Your task to perform on an android device: Search for Italian restaurants on Maps Image 0: 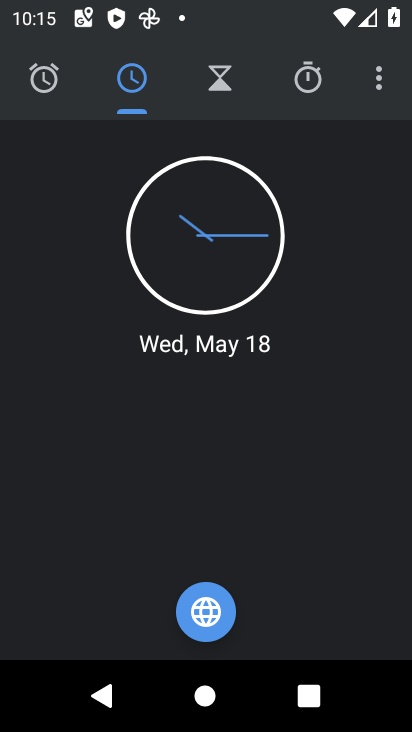
Step 0: press home button
Your task to perform on an android device: Search for Italian restaurants on Maps Image 1: 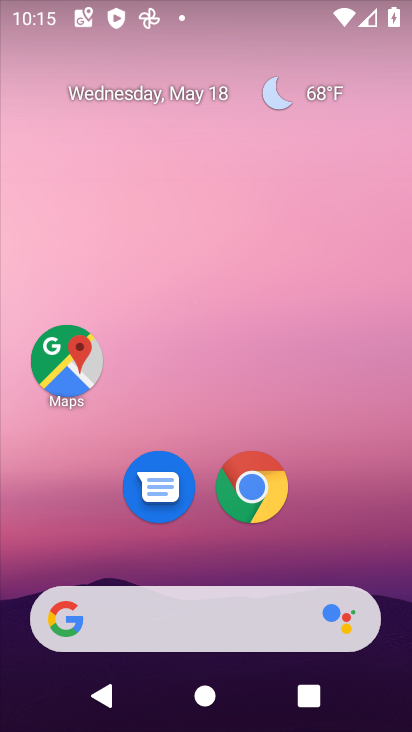
Step 1: drag from (359, 490) to (363, 134)
Your task to perform on an android device: Search for Italian restaurants on Maps Image 2: 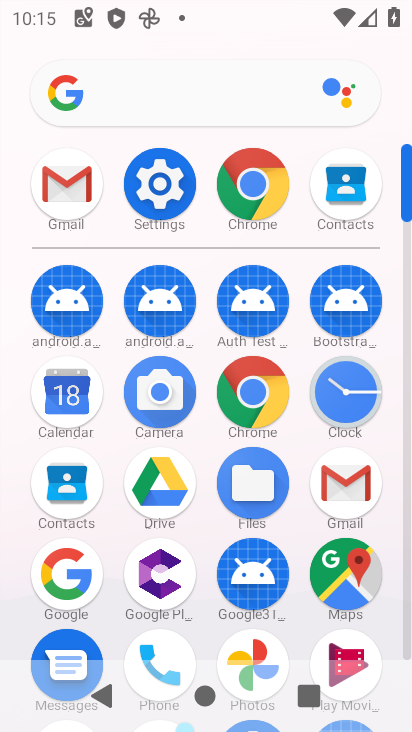
Step 2: click (331, 577)
Your task to perform on an android device: Search for Italian restaurants on Maps Image 3: 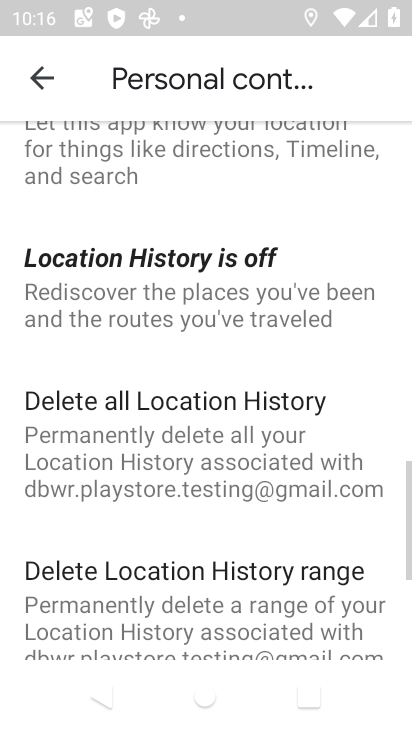
Step 3: click (53, 72)
Your task to perform on an android device: Search for Italian restaurants on Maps Image 4: 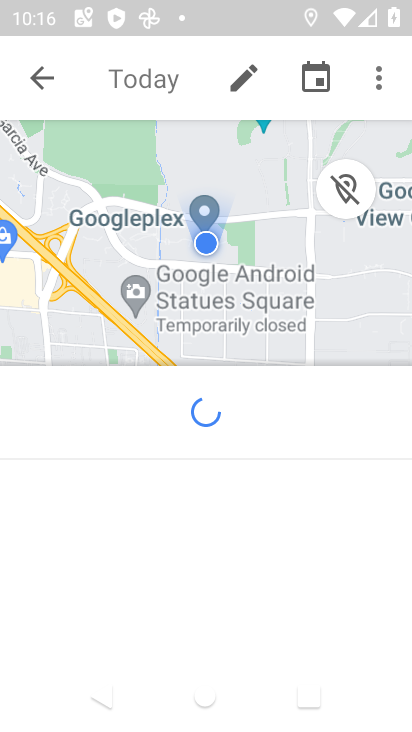
Step 4: click (53, 72)
Your task to perform on an android device: Search for Italian restaurants on Maps Image 5: 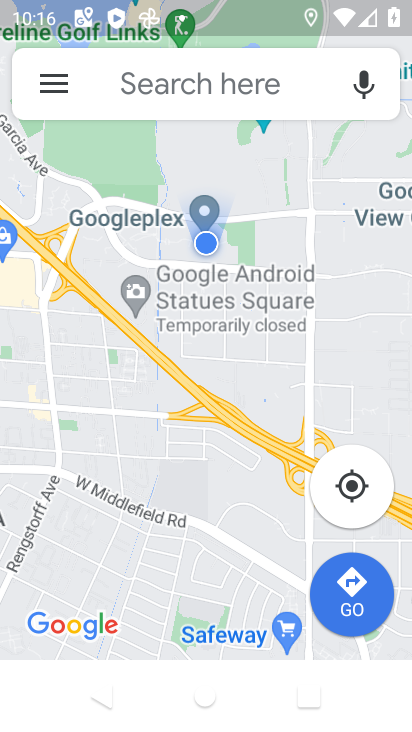
Step 5: click (187, 82)
Your task to perform on an android device: Search for Italian restaurants on Maps Image 6: 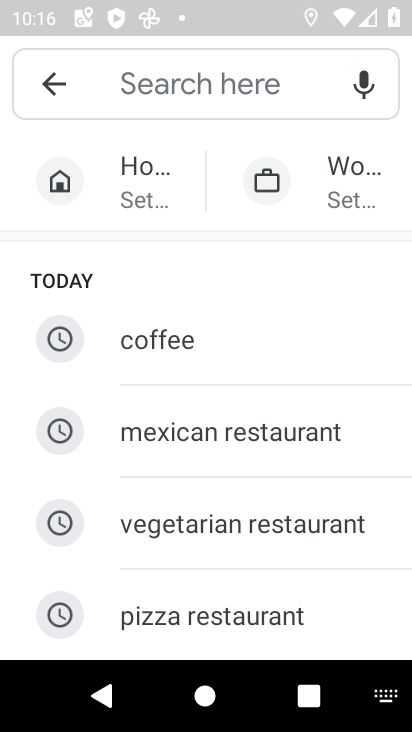
Step 6: type "italian restaurants "
Your task to perform on an android device: Search for Italian restaurants on Maps Image 7: 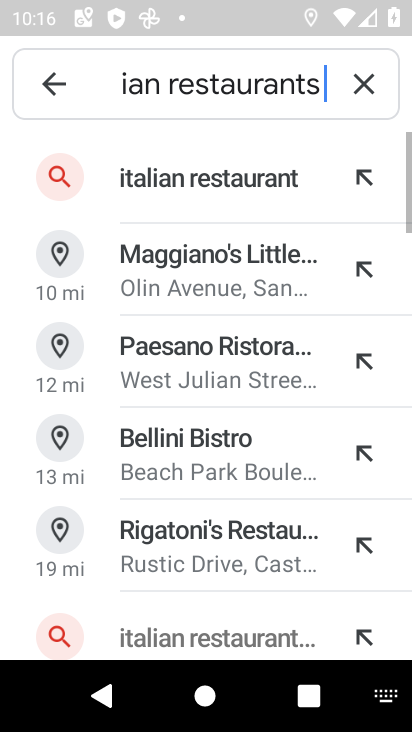
Step 7: click (186, 175)
Your task to perform on an android device: Search for Italian restaurants on Maps Image 8: 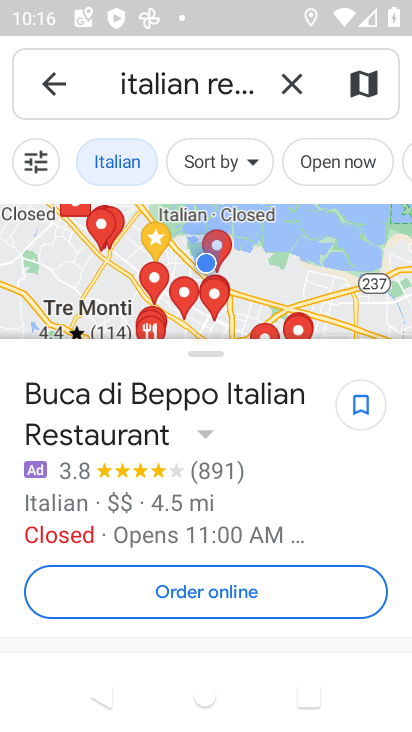
Step 8: task complete